Your task to perform on an android device: Do I have any events today? Image 0: 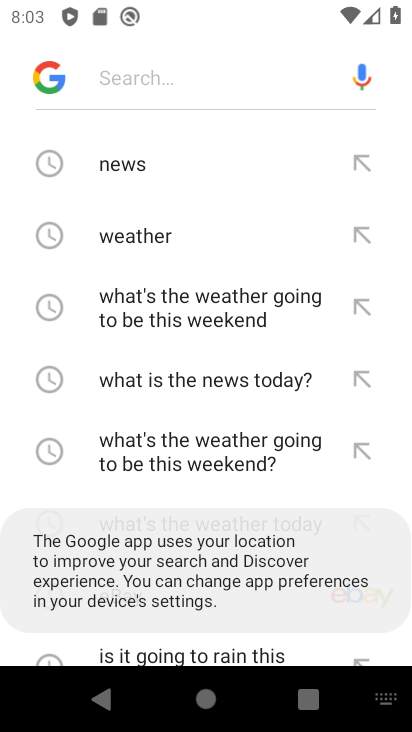
Step 0: press back button
Your task to perform on an android device: Do I have any events today? Image 1: 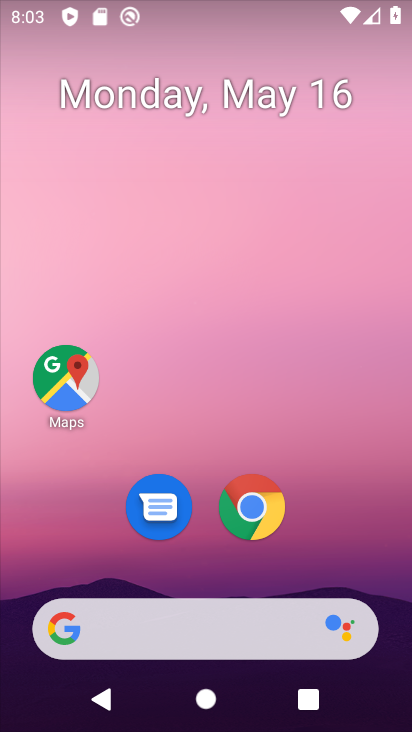
Step 1: drag from (201, 597) to (333, 53)
Your task to perform on an android device: Do I have any events today? Image 2: 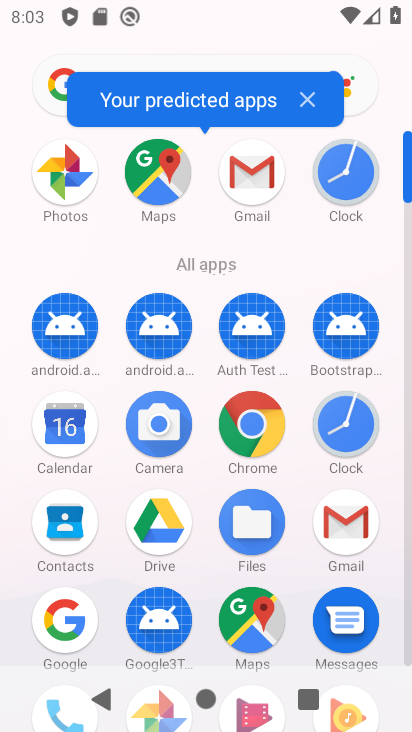
Step 2: click (57, 450)
Your task to perform on an android device: Do I have any events today? Image 3: 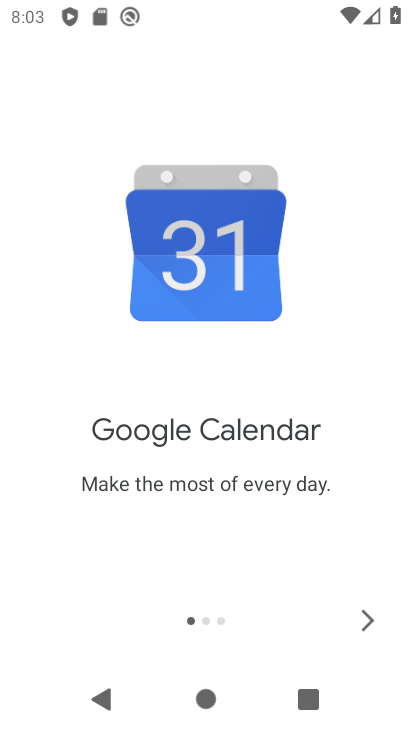
Step 3: click (371, 620)
Your task to perform on an android device: Do I have any events today? Image 4: 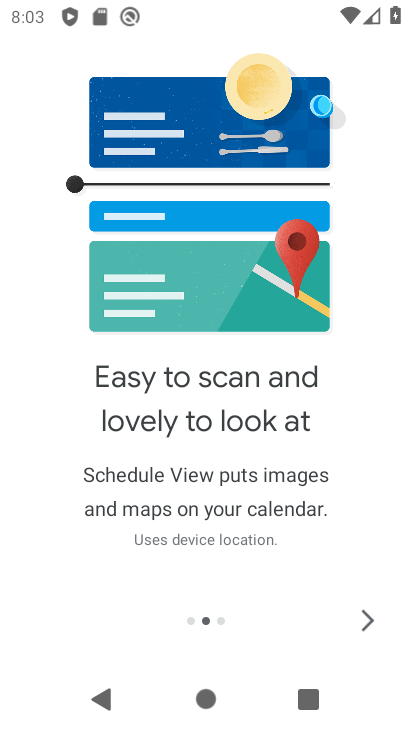
Step 4: click (371, 620)
Your task to perform on an android device: Do I have any events today? Image 5: 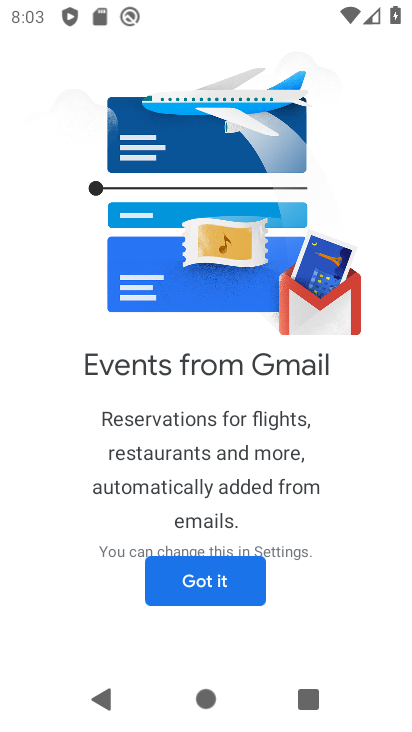
Step 5: click (187, 578)
Your task to perform on an android device: Do I have any events today? Image 6: 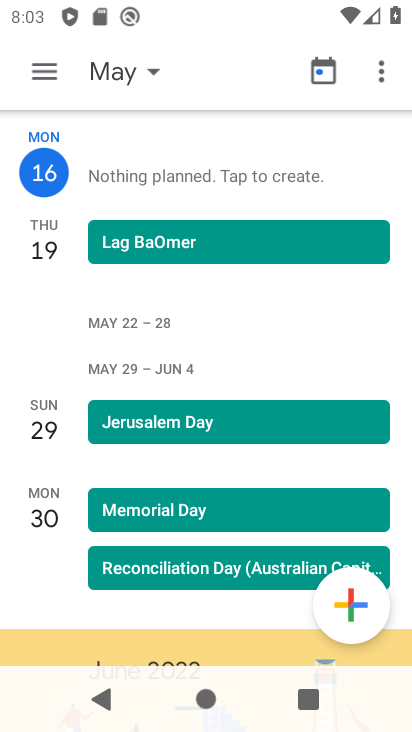
Step 6: click (32, 169)
Your task to perform on an android device: Do I have any events today? Image 7: 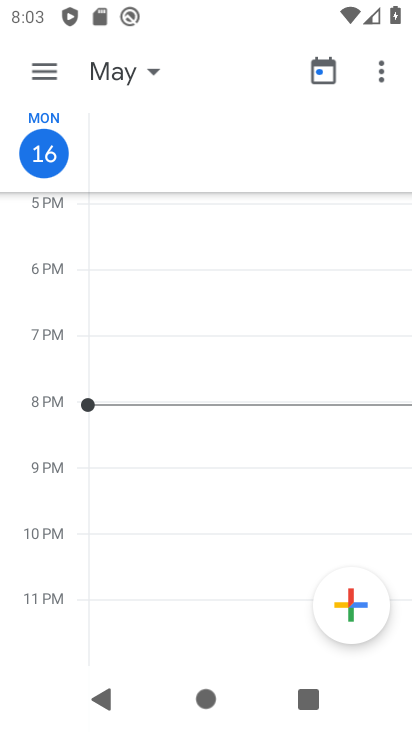
Step 7: task complete